Your task to perform on an android device: Search for vegetarian restaurants on Maps Image 0: 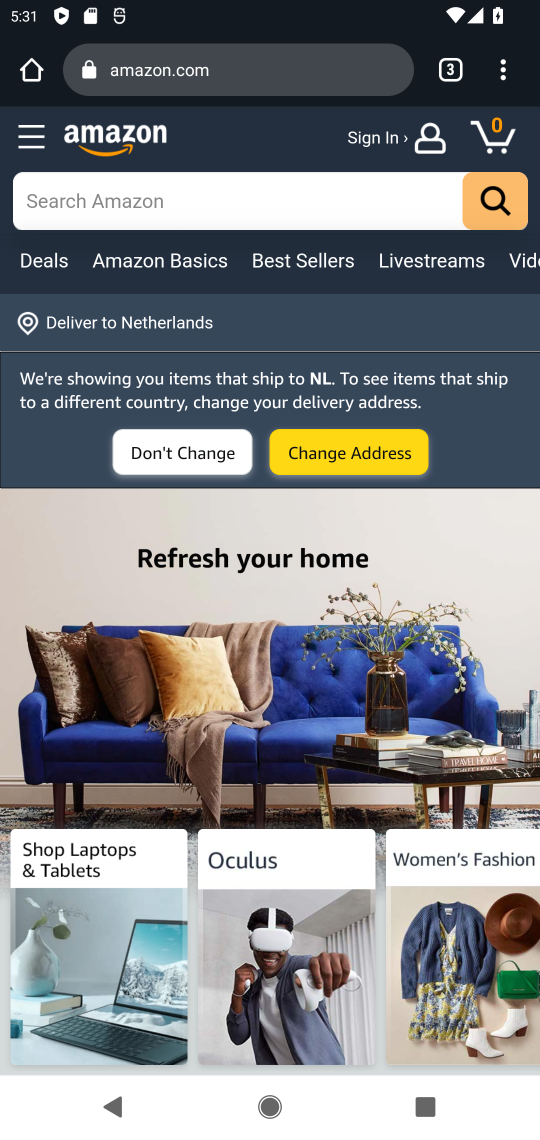
Step 0: press home button
Your task to perform on an android device: Search for vegetarian restaurants on Maps Image 1: 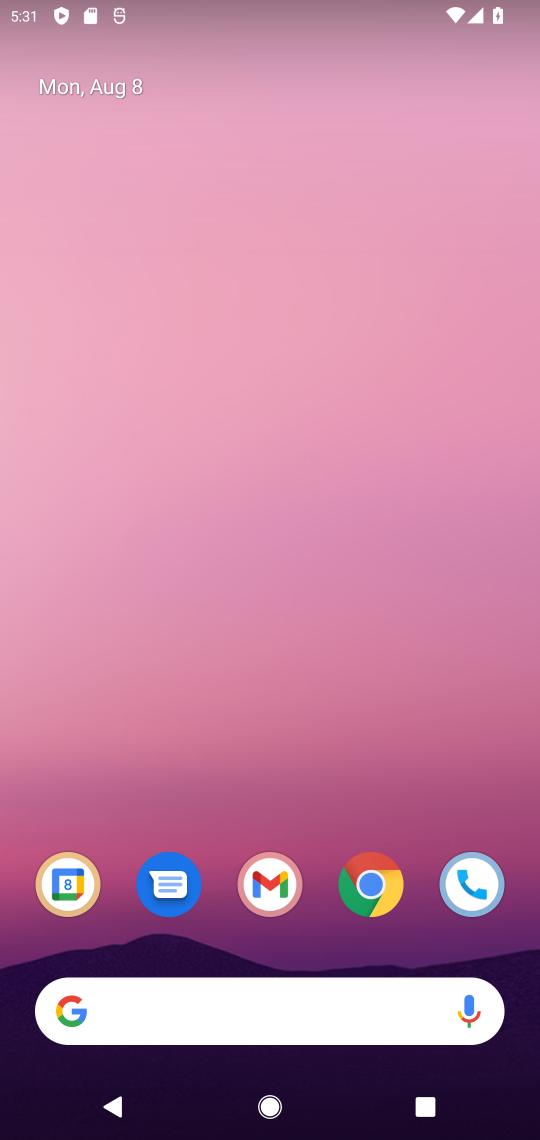
Step 1: drag from (315, 837) to (292, 186)
Your task to perform on an android device: Search for vegetarian restaurants on Maps Image 2: 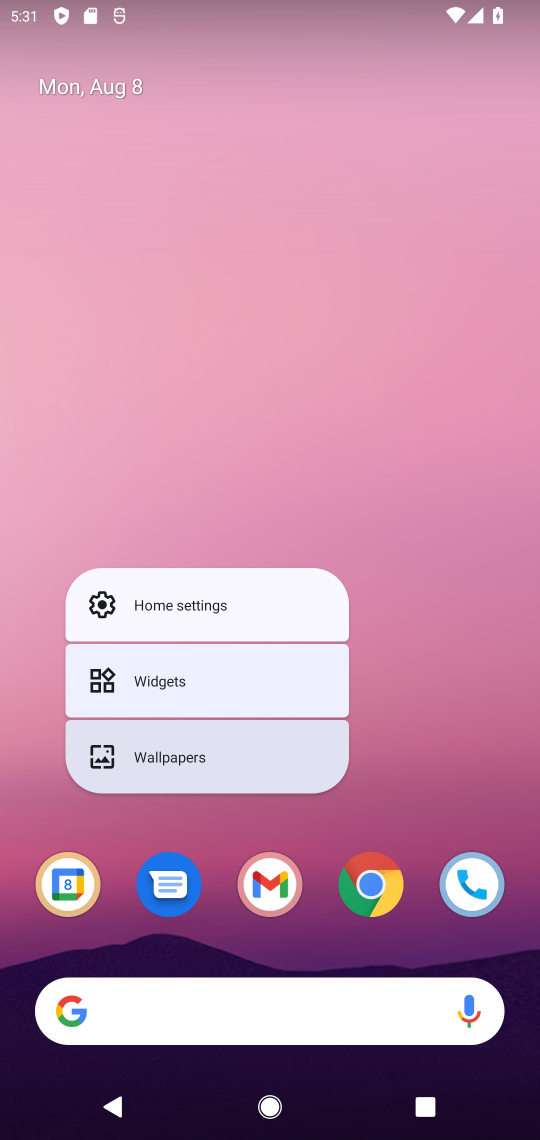
Step 2: drag from (430, 962) to (382, 250)
Your task to perform on an android device: Search for vegetarian restaurants on Maps Image 3: 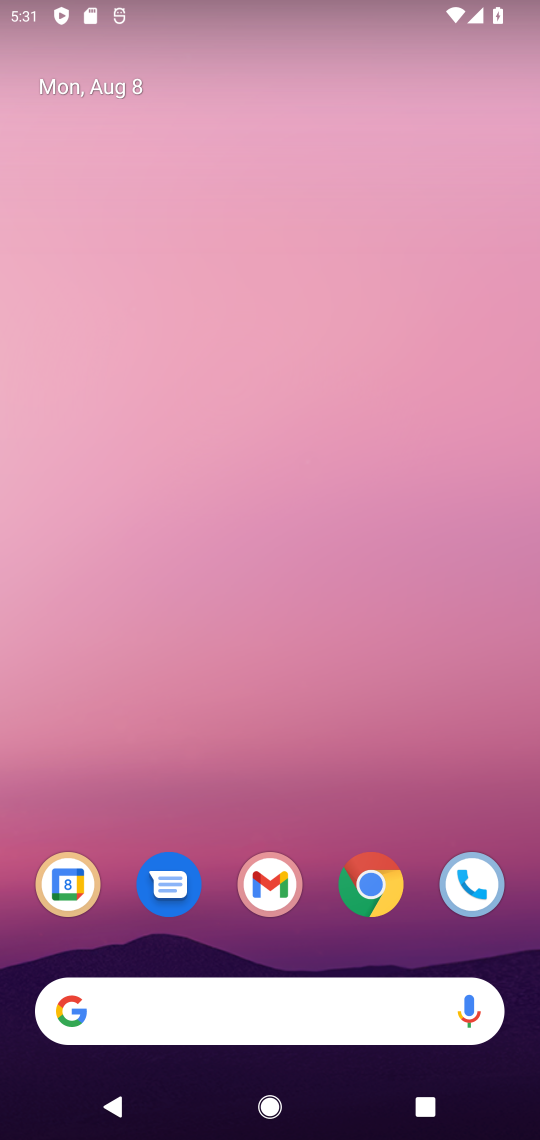
Step 3: drag from (324, 830) to (248, 78)
Your task to perform on an android device: Search for vegetarian restaurants on Maps Image 4: 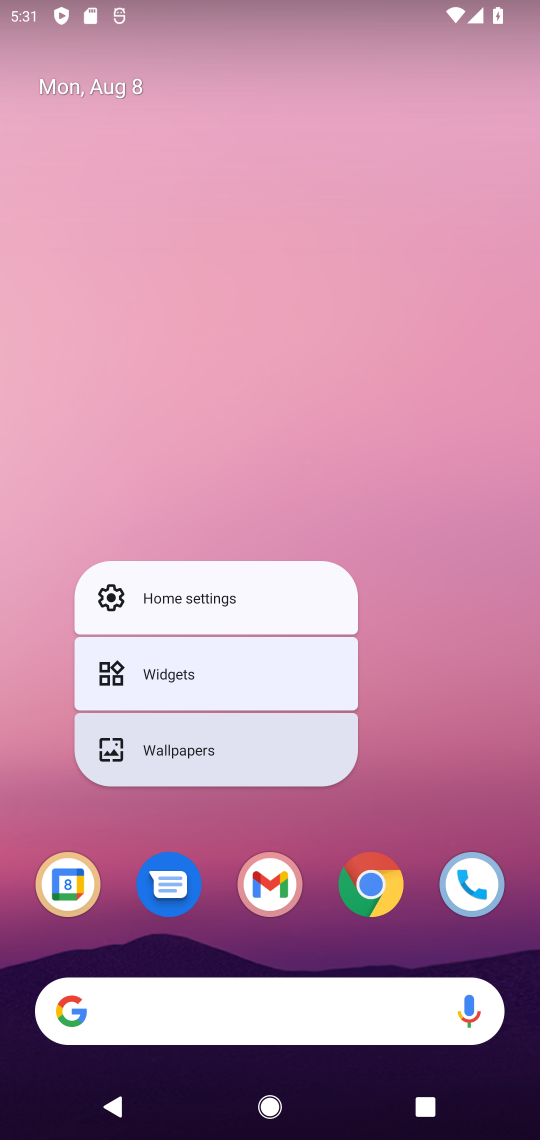
Step 4: drag from (426, 797) to (369, 158)
Your task to perform on an android device: Search for vegetarian restaurants on Maps Image 5: 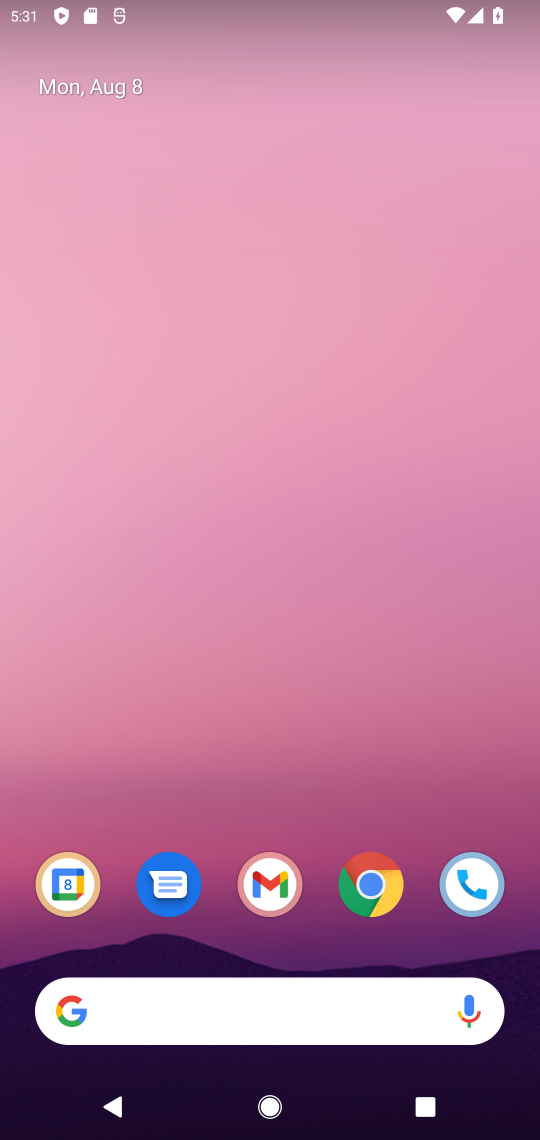
Step 5: drag from (423, 951) to (371, 225)
Your task to perform on an android device: Search for vegetarian restaurants on Maps Image 6: 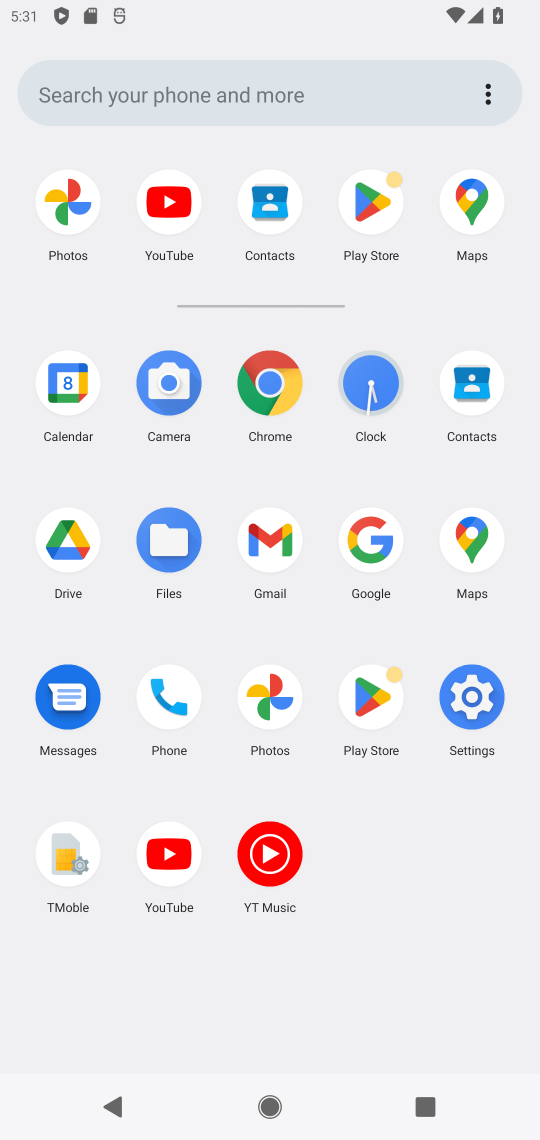
Step 6: click (467, 536)
Your task to perform on an android device: Search for vegetarian restaurants on Maps Image 7: 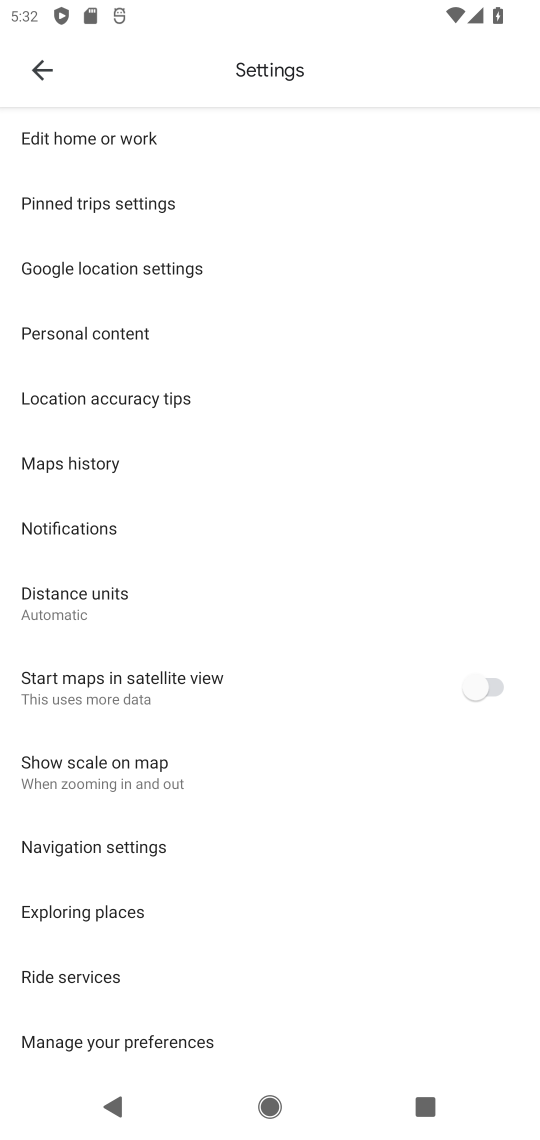
Step 7: click (43, 64)
Your task to perform on an android device: Search for vegetarian restaurants on Maps Image 8: 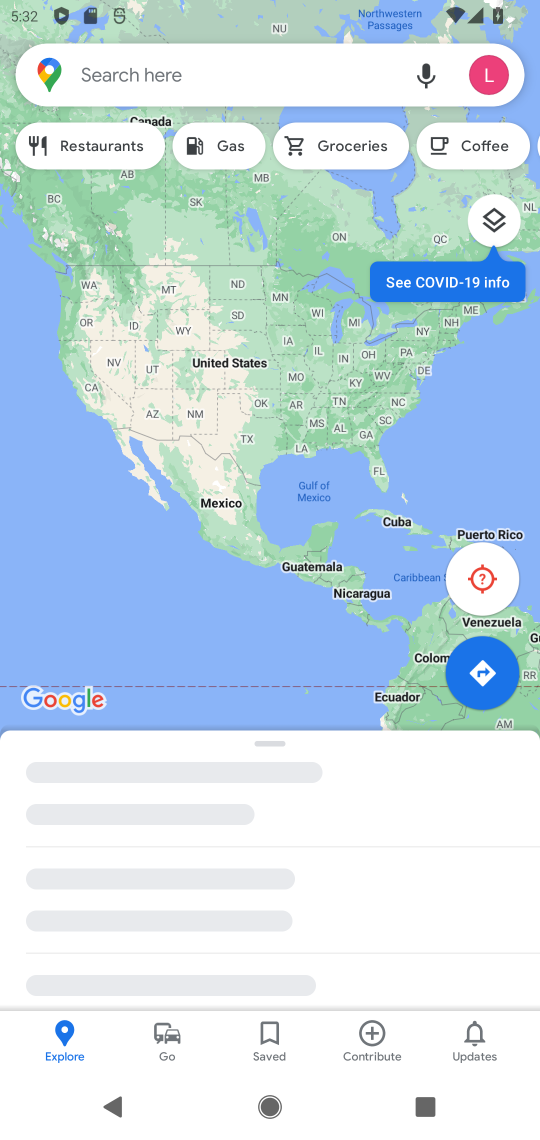
Step 8: click (131, 78)
Your task to perform on an android device: Search for vegetarian restaurants on Maps Image 9: 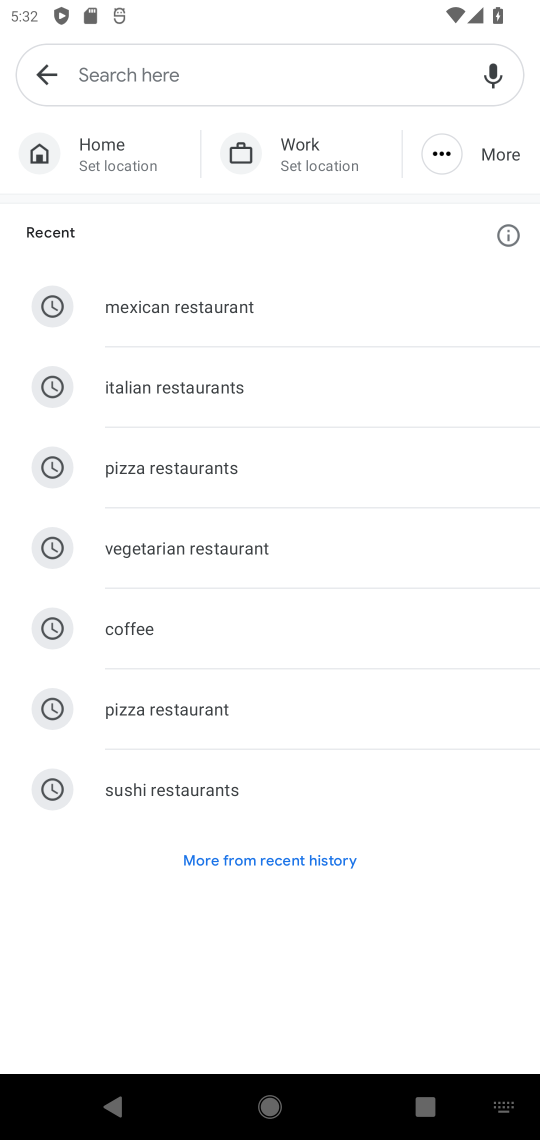
Step 9: click (224, 566)
Your task to perform on an android device: Search for vegetarian restaurants on Maps Image 10: 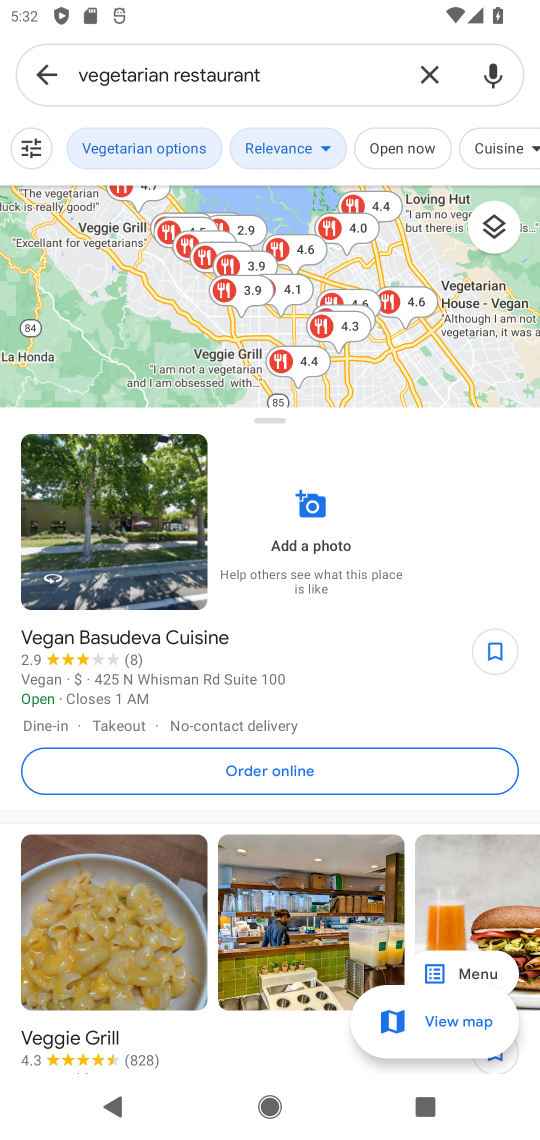
Step 10: task complete